Your task to perform on an android device: See recent photos Image 0: 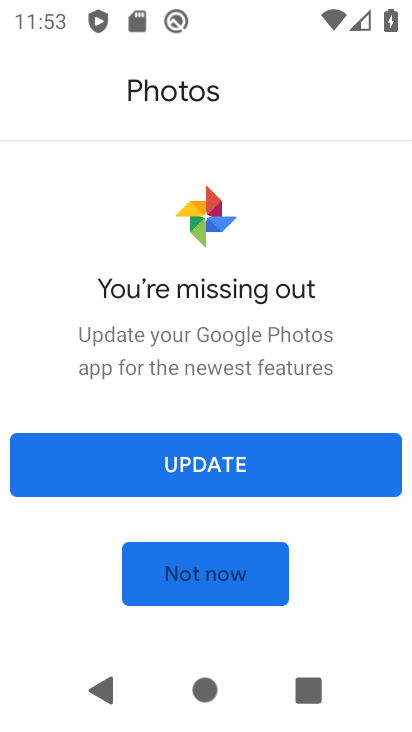
Step 0: press home button
Your task to perform on an android device: See recent photos Image 1: 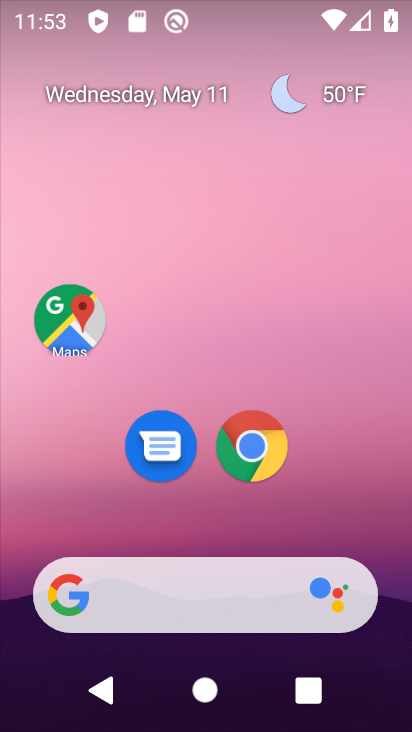
Step 1: drag from (330, 492) to (313, 269)
Your task to perform on an android device: See recent photos Image 2: 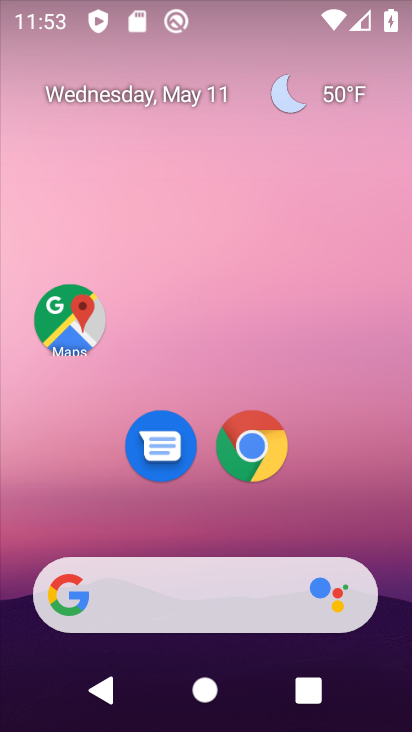
Step 2: drag from (338, 503) to (320, 166)
Your task to perform on an android device: See recent photos Image 3: 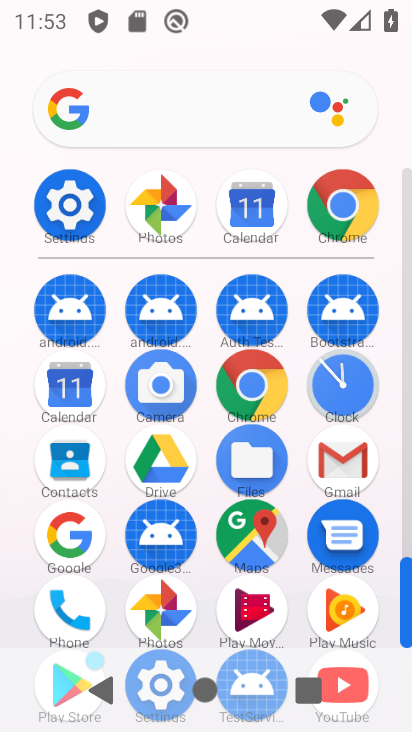
Step 3: click (180, 223)
Your task to perform on an android device: See recent photos Image 4: 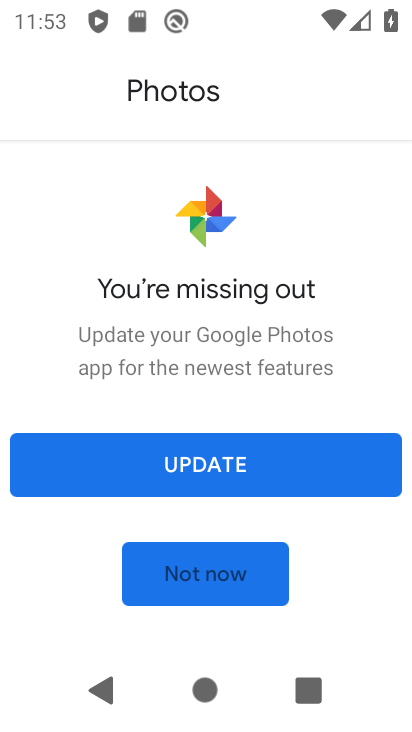
Step 4: click (242, 457)
Your task to perform on an android device: See recent photos Image 5: 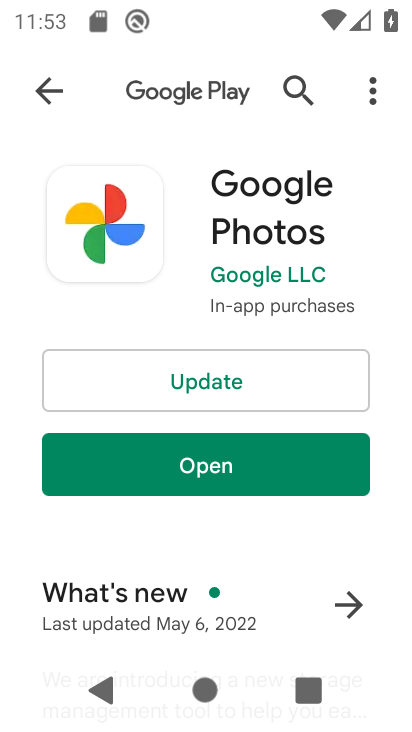
Step 5: click (236, 384)
Your task to perform on an android device: See recent photos Image 6: 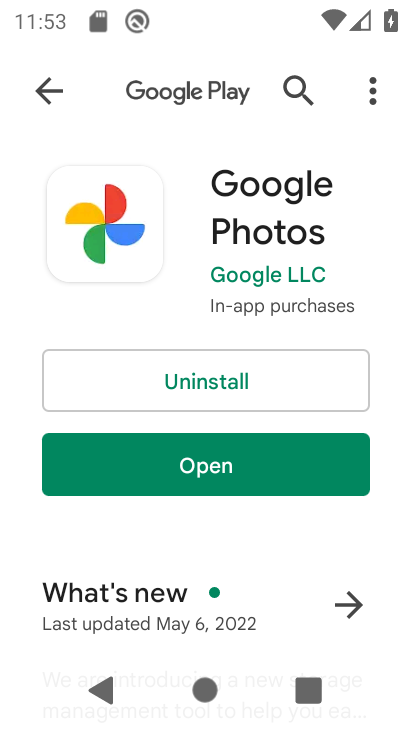
Step 6: click (185, 470)
Your task to perform on an android device: See recent photos Image 7: 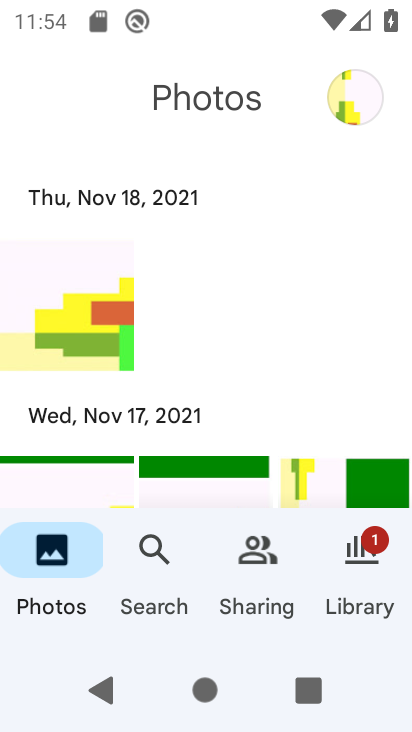
Step 7: task complete